Your task to perform on an android device: Go to calendar. Show me events next week Image 0: 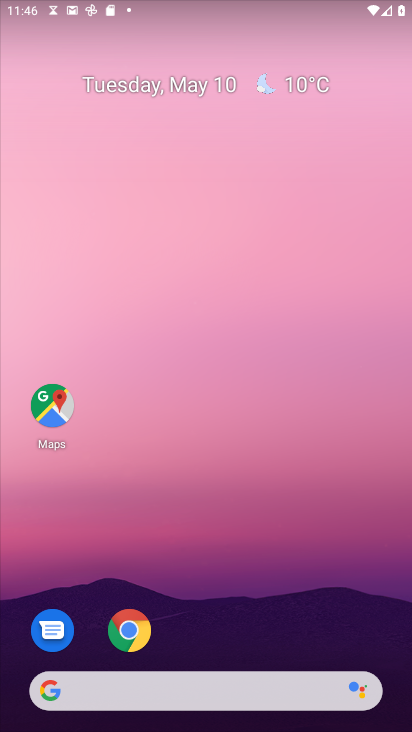
Step 0: click (165, 79)
Your task to perform on an android device: Go to calendar. Show me events next week Image 1: 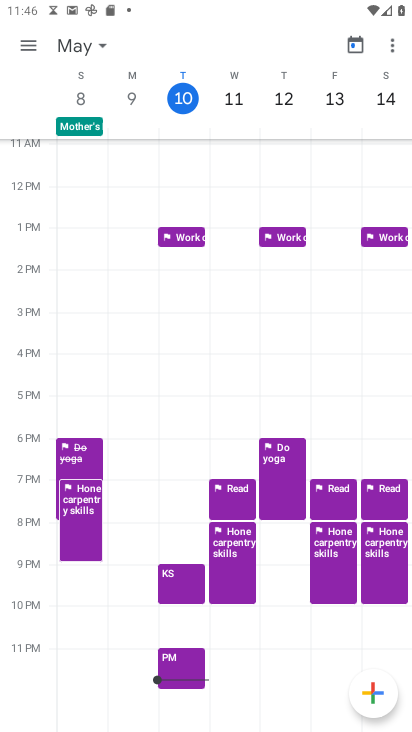
Step 1: click (33, 45)
Your task to perform on an android device: Go to calendar. Show me events next week Image 2: 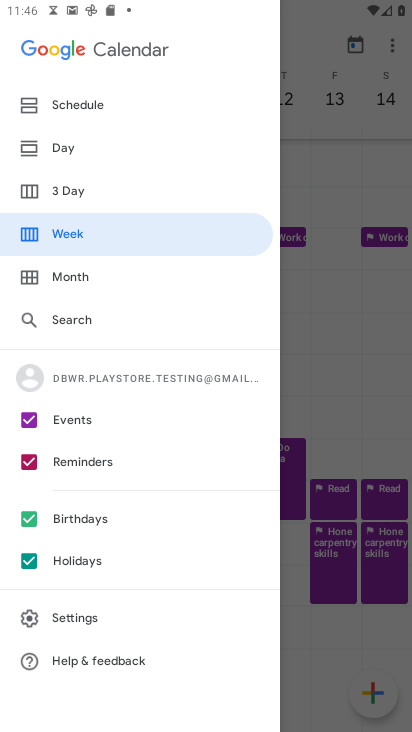
Step 2: click (28, 464)
Your task to perform on an android device: Go to calendar. Show me events next week Image 3: 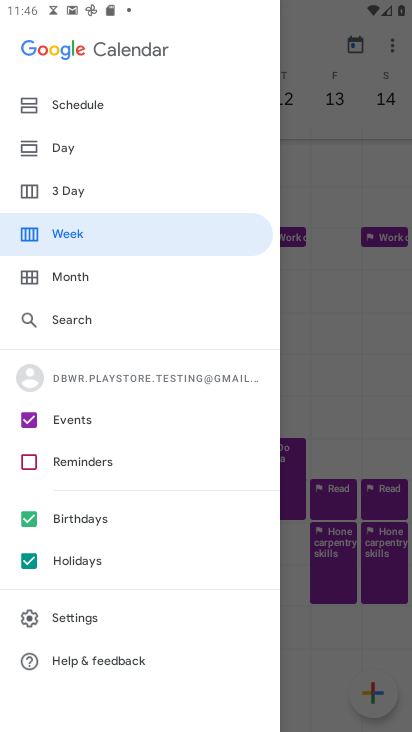
Step 3: click (32, 513)
Your task to perform on an android device: Go to calendar. Show me events next week Image 4: 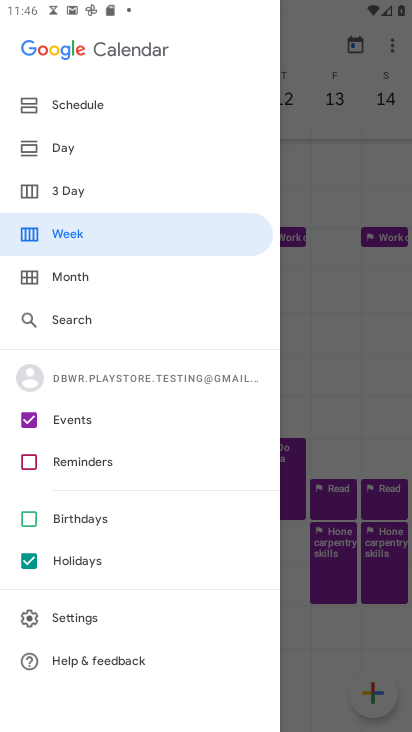
Step 4: click (33, 562)
Your task to perform on an android device: Go to calendar. Show me events next week Image 5: 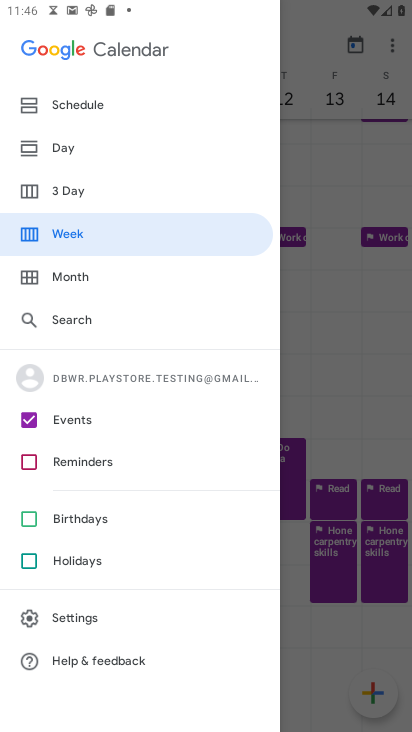
Step 5: click (95, 227)
Your task to perform on an android device: Go to calendar. Show me events next week Image 6: 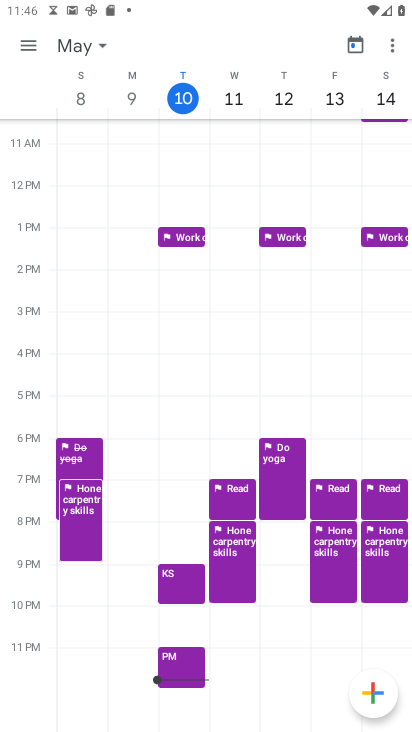
Step 6: click (103, 43)
Your task to perform on an android device: Go to calendar. Show me events next week Image 7: 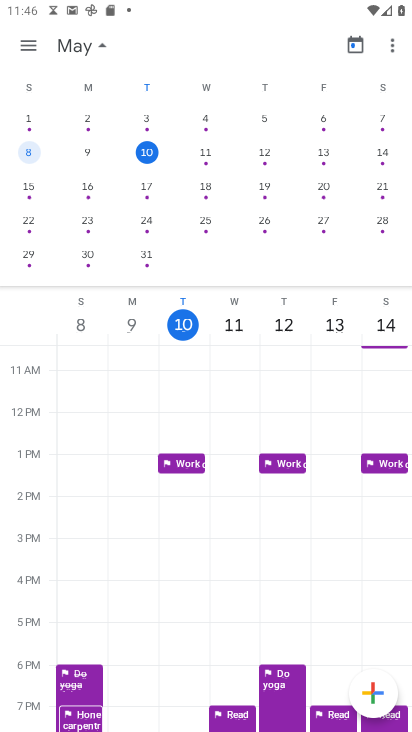
Step 7: drag from (372, 198) to (0, 196)
Your task to perform on an android device: Go to calendar. Show me events next week Image 8: 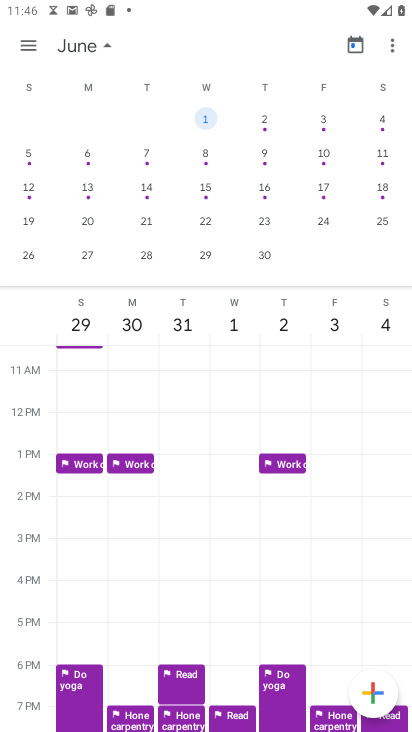
Step 8: drag from (89, 193) to (403, 198)
Your task to perform on an android device: Go to calendar. Show me events next week Image 9: 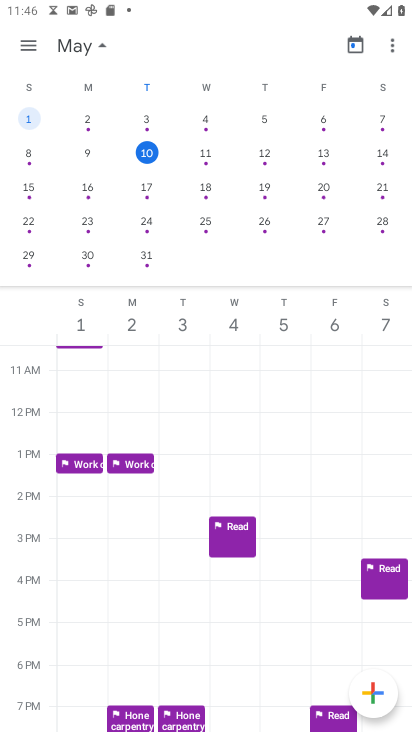
Step 9: click (77, 183)
Your task to perform on an android device: Go to calendar. Show me events next week Image 10: 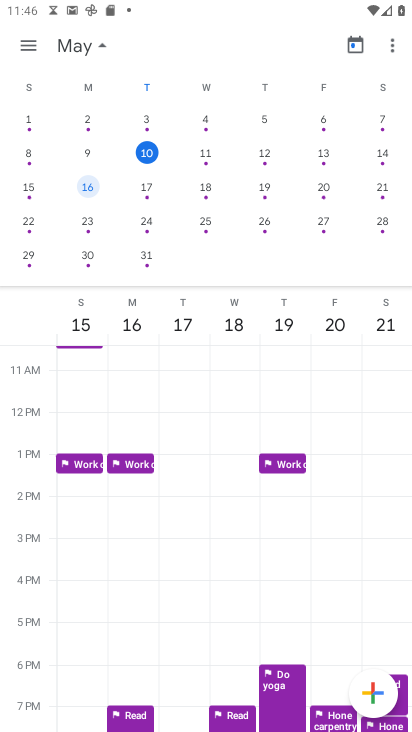
Step 10: task complete